Your task to perform on an android device: turn on improve location accuracy Image 0: 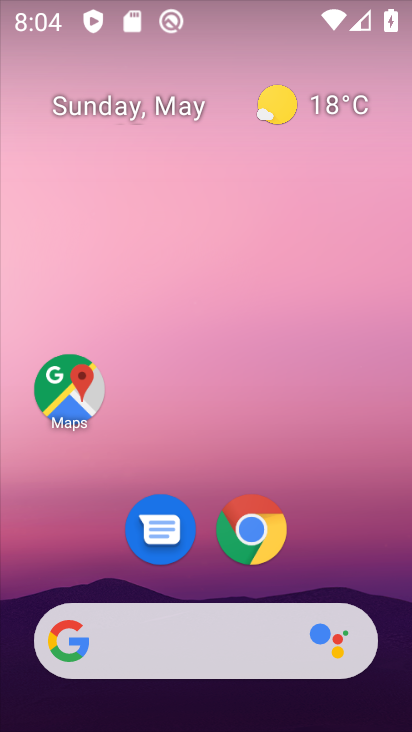
Step 0: drag from (339, 542) to (319, 24)
Your task to perform on an android device: turn on improve location accuracy Image 1: 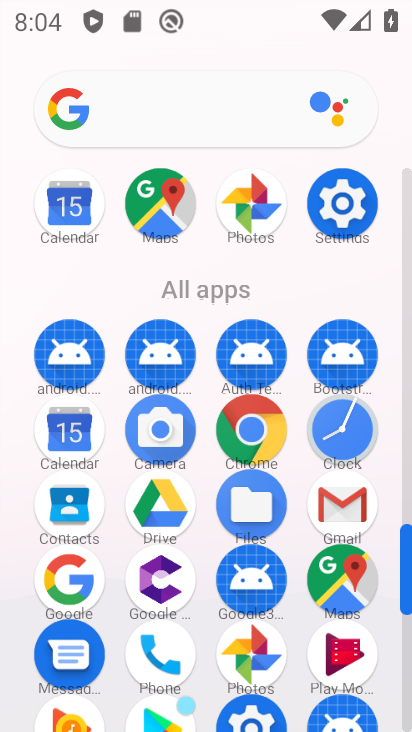
Step 1: click (341, 213)
Your task to perform on an android device: turn on improve location accuracy Image 2: 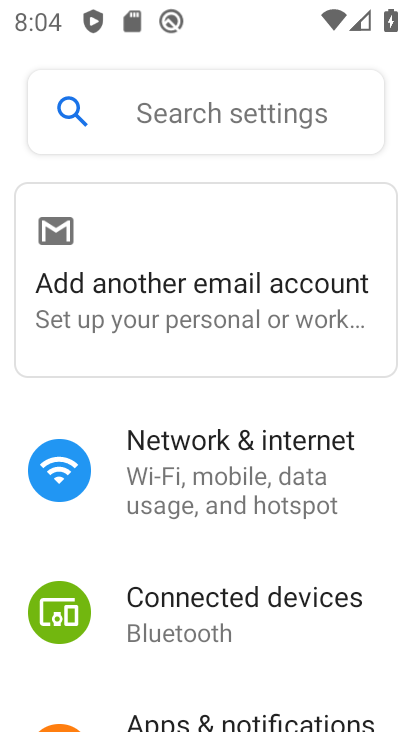
Step 2: drag from (318, 650) to (296, 82)
Your task to perform on an android device: turn on improve location accuracy Image 3: 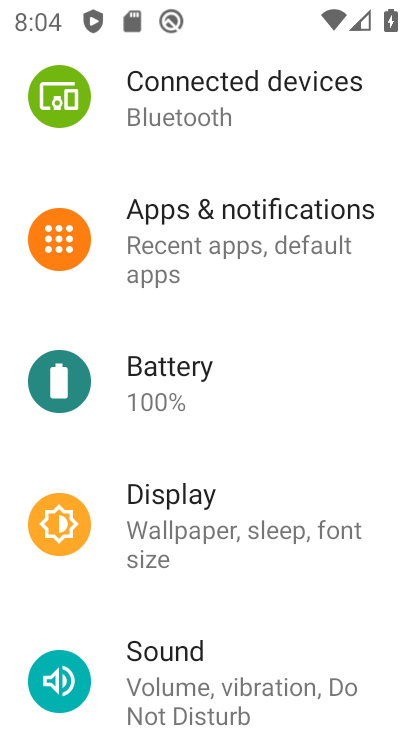
Step 3: drag from (291, 469) to (255, 162)
Your task to perform on an android device: turn on improve location accuracy Image 4: 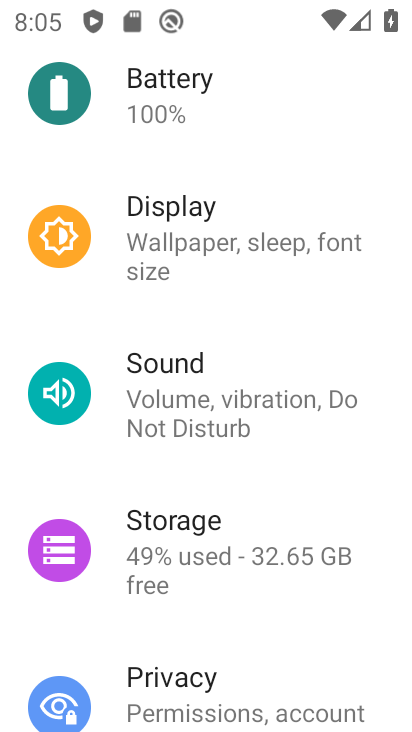
Step 4: drag from (254, 453) to (246, 100)
Your task to perform on an android device: turn on improve location accuracy Image 5: 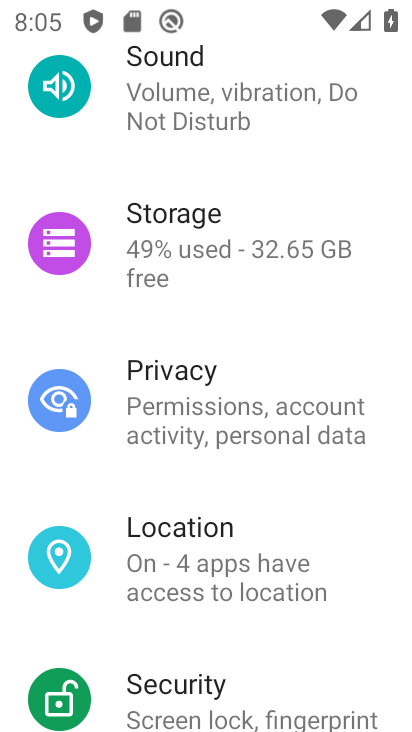
Step 5: click (186, 555)
Your task to perform on an android device: turn on improve location accuracy Image 6: 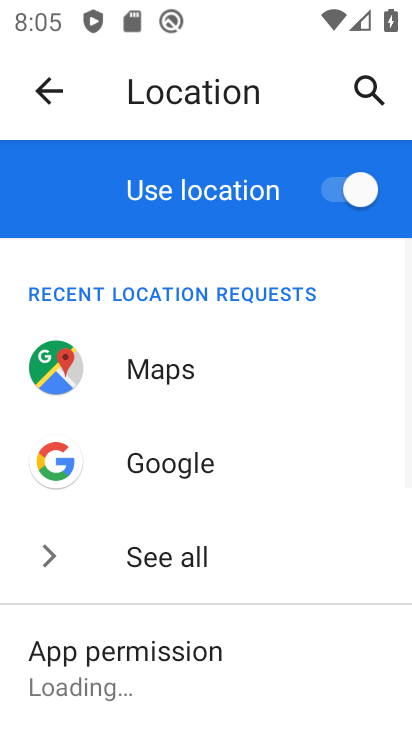
Step 6: drag from (284, 644) to (263, 211)
Your task to perform on an android device: turn on improve location accuracy Image 7: 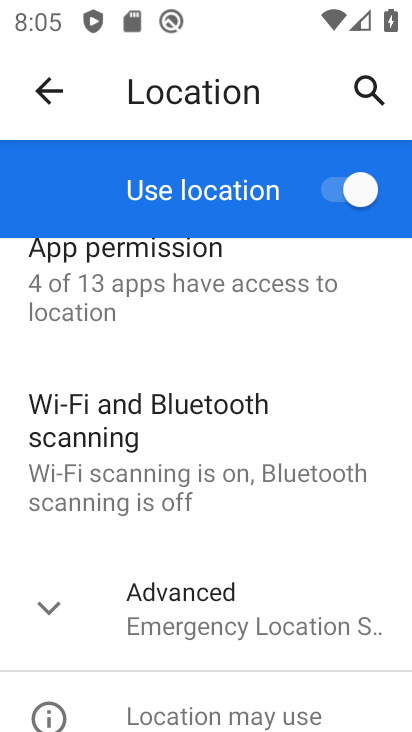
Step 7: click (45, 612)
Your task to perform on an android device: turn on improve location accuracy Image 8: 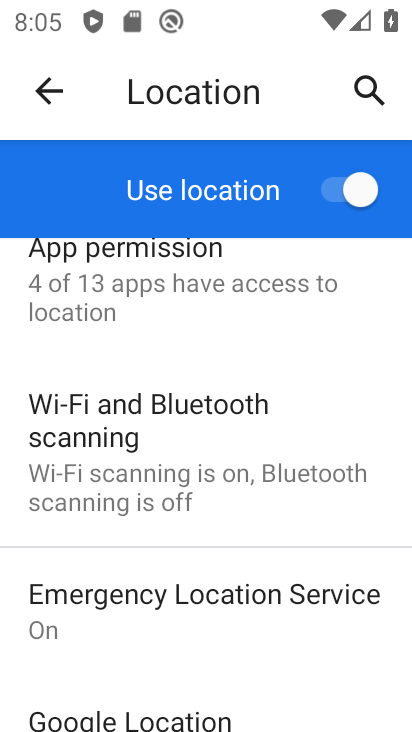
Step 8: drag from (201, 567) to (170, 227)
Your task to perform on an android device: turn on improve location accuracy Image 9: 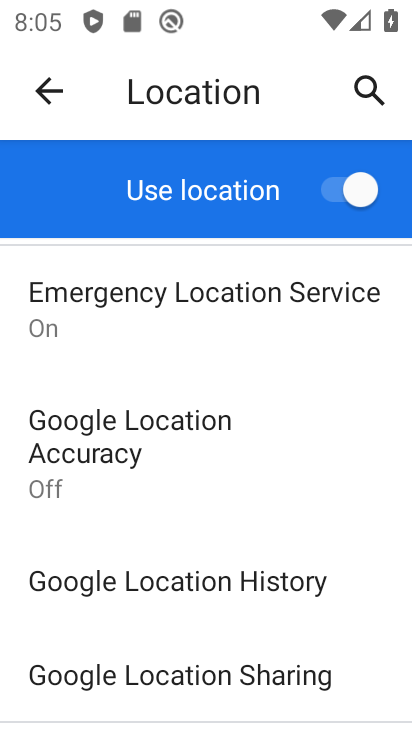
Step 9: click (53, 466)
Your task to perform on an android device: turn on improve location accuracy Image 10: 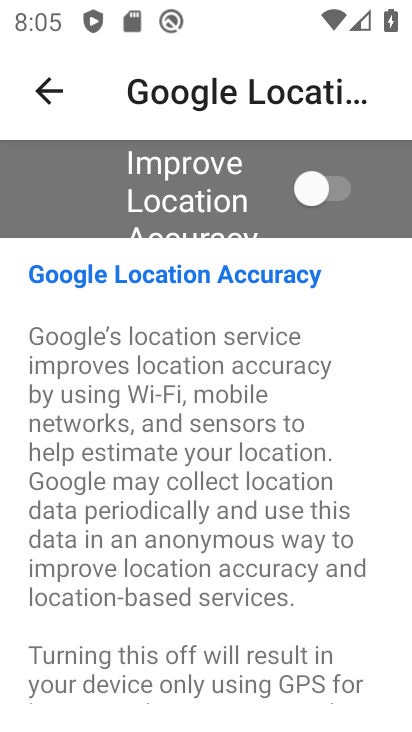
Step 10: click (293, 196)
Your task to perform on an android device: turn on improve location accuracy Image 11: 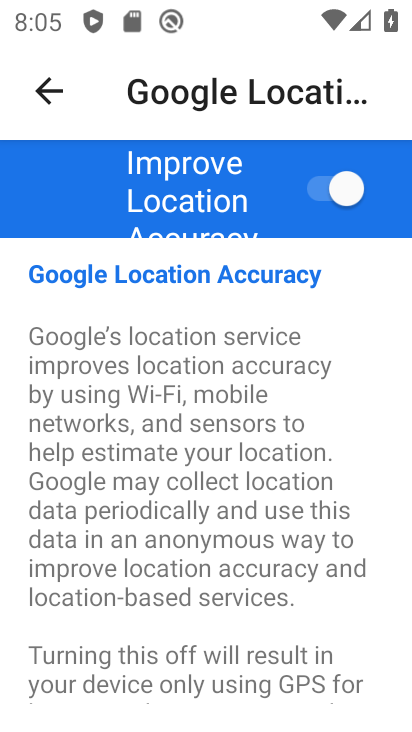
Step 11: task complete